Your task to perform on an android device: Add razer blade to the cart on walmart, then select checkout. Image 0: 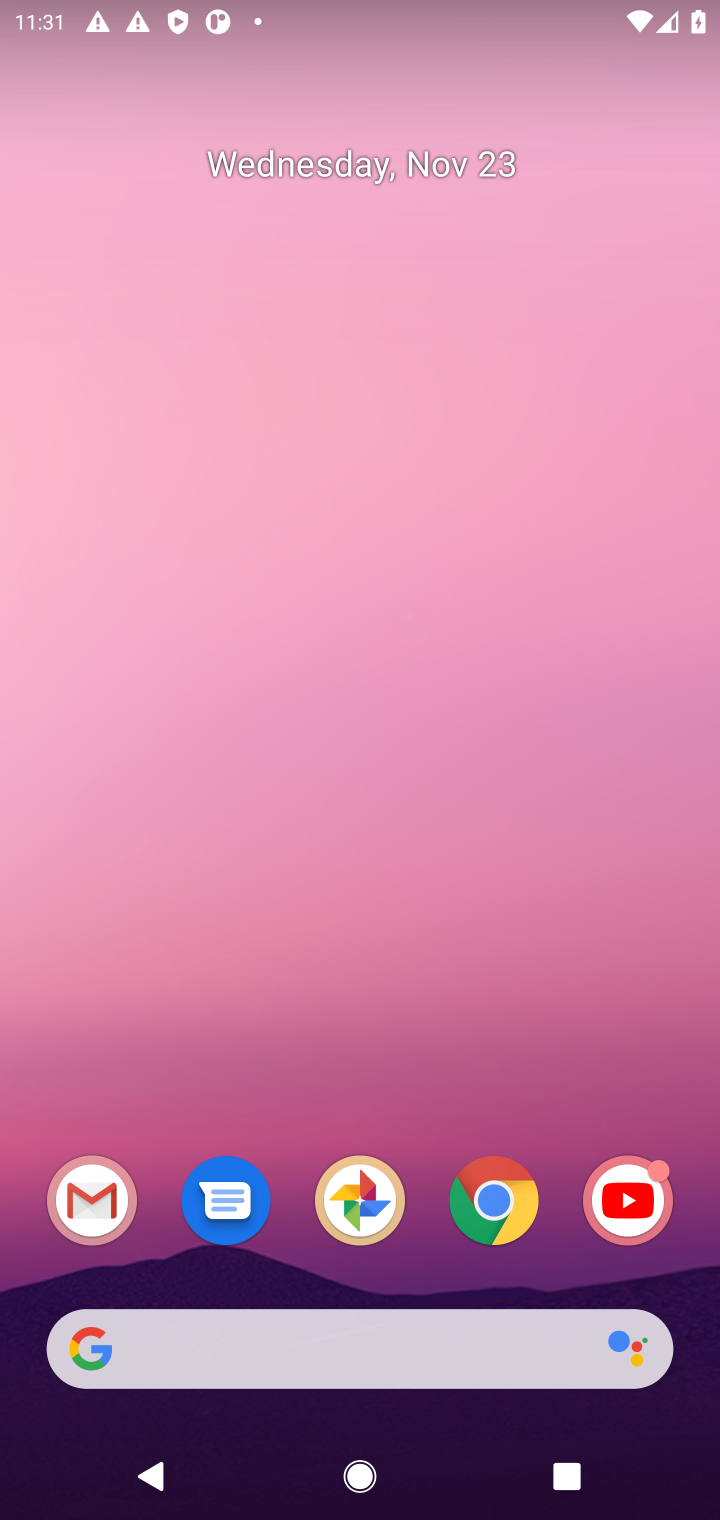
Step 0: click (375, 1383)
Your task to perform on an android device: Add razer blade to the cart on walmart, then select checkout. Image 1: 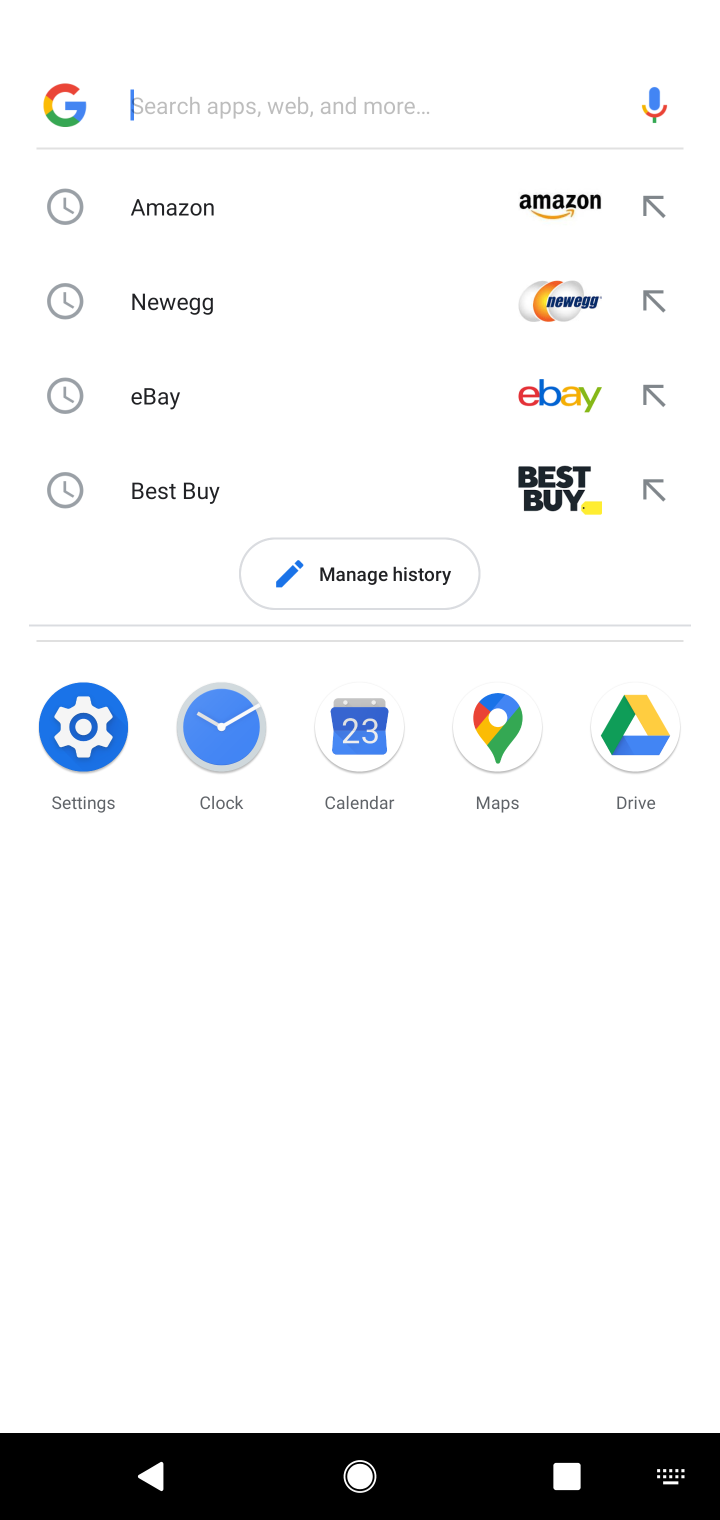
Step 1: type "walmart"
Your task to perform on an android device: Add razer blade to the cart on walmart, then select checkout. Image 2: 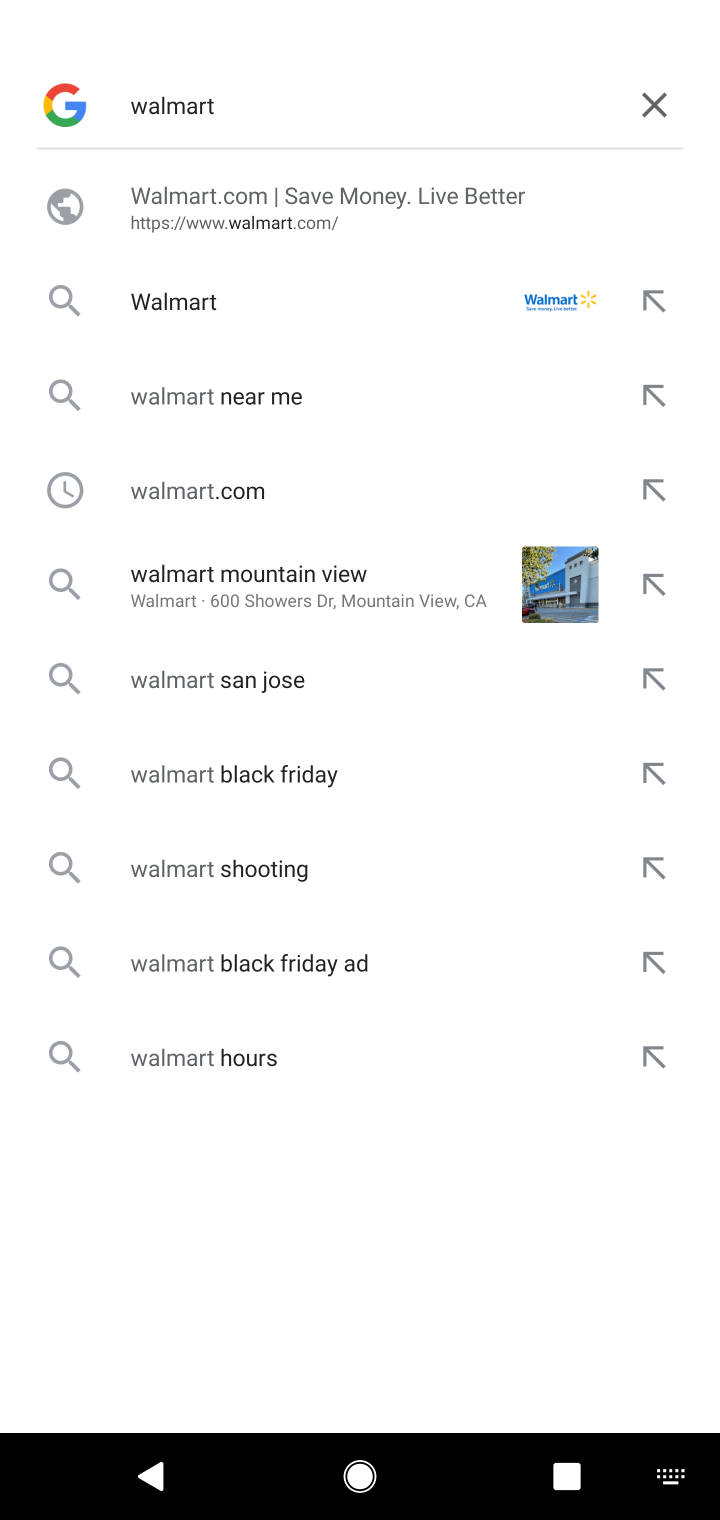
Step 2: click (229, 181)
Your task to perform on an android device: Add razer blade to the cart on walmart, then select checkout. Image 3: 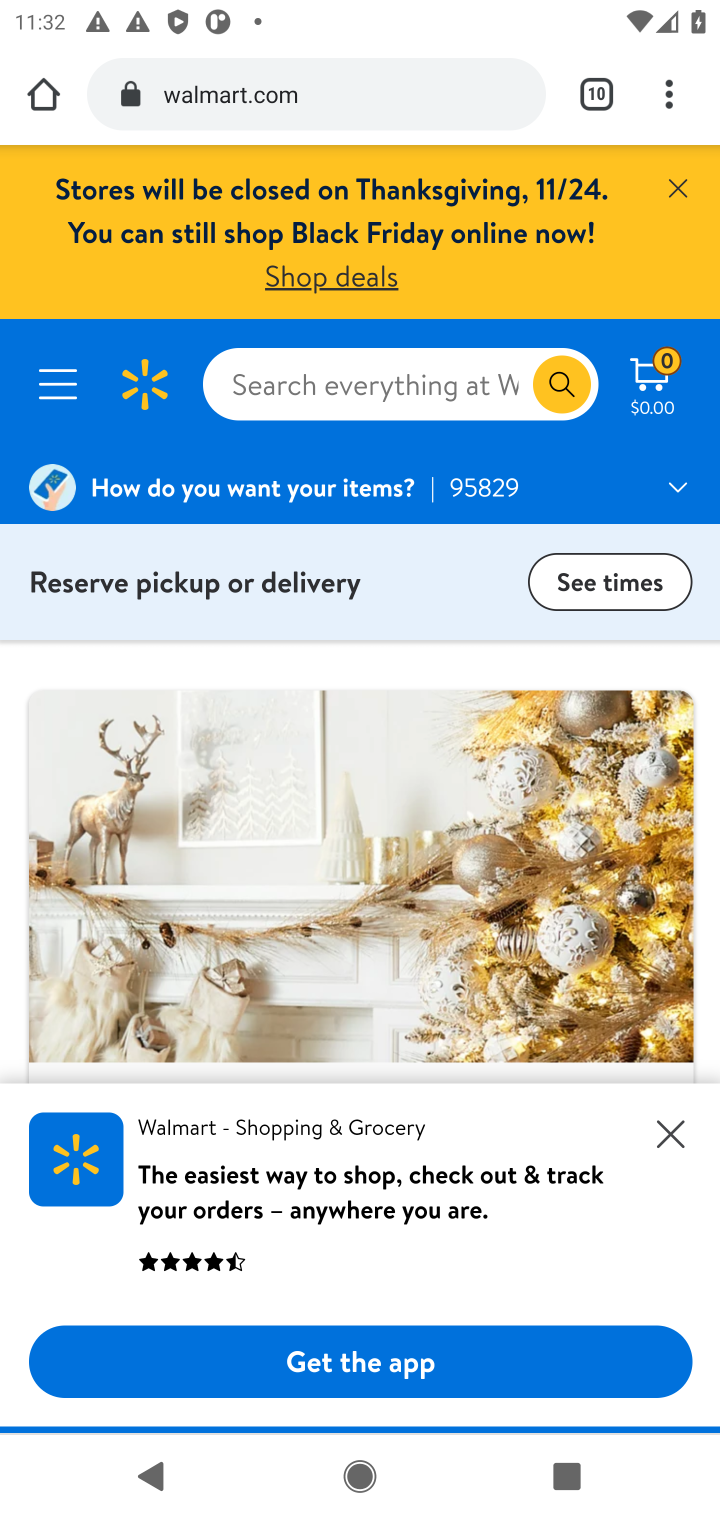
Step 3: task complete